Your task to perform on an android device: Do I have any events tomorrow? Image 0: 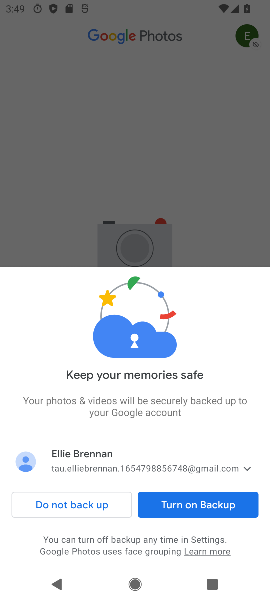
Step 0: click (81, 505)
Your task to perform on an android device: Do I have any events tomorrow? Image 1: 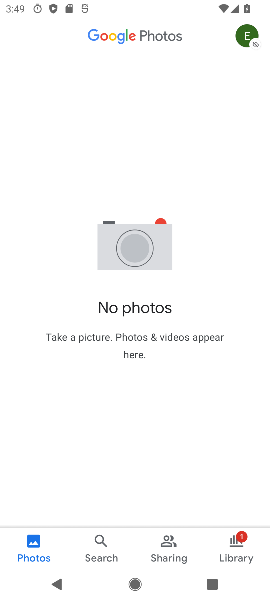
Step 1: press back button
Your task to perform on an android device: Do I have any events tomorrow? Image 2: 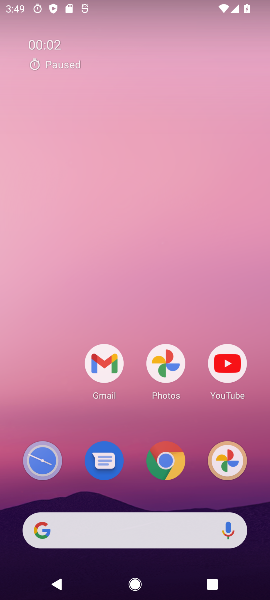
Step 2: drag from (184, 506) to (133, 144)
Your task to perform on an android device: Do I have any events tomorrow? Image 3: 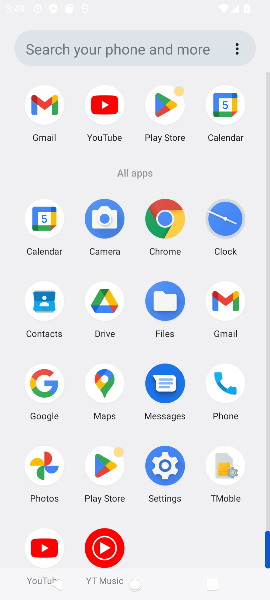
Step 3: drag from (248, 451) to (223, 267)
Your task to perform on an android device: Do I have any events tomorrow? Image 4: 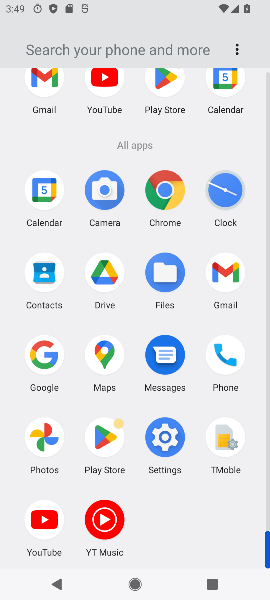
Step 4: drag from (197, 460) to (161, 221)
Your task to perform on an android device: Do I have any events tomorrow? Image 5: 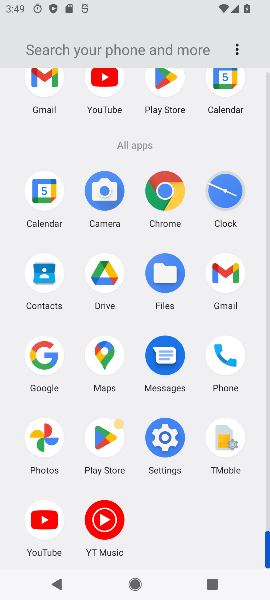
Step 5: click (226, 79)
Your task to perform on an android device: Do I have any events tomorrow? Image 6: 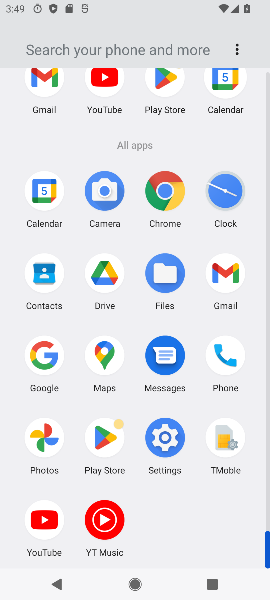
Step 6: click (226, 79)
Your task to perform on an android device: Do I have any events tomorrow? Image 7: 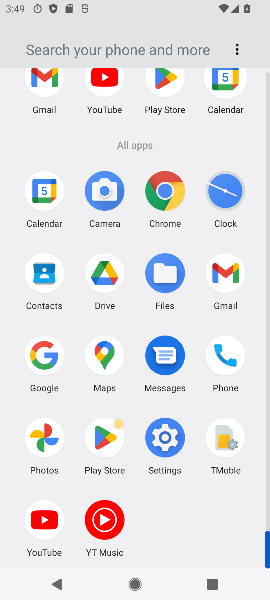
Step 7: click (226, 79)
Your task to perform on an android device: Do I have any events tomorrow? Image 8: 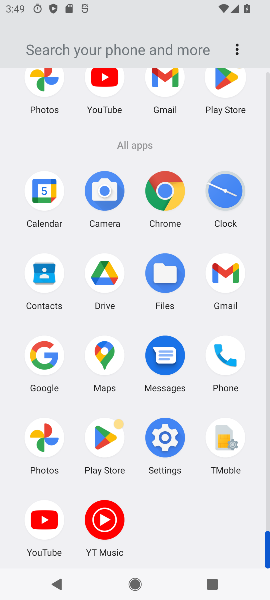
Step 8: click (227, 80)
Your task to perform on an android device: Do I have any events tomorrow? Image 9: 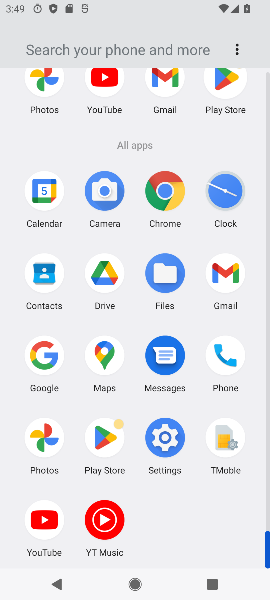
Step 9: click (229, 80)
Your task to perform on an android device: Do I have any events tomorrow? Image 10: 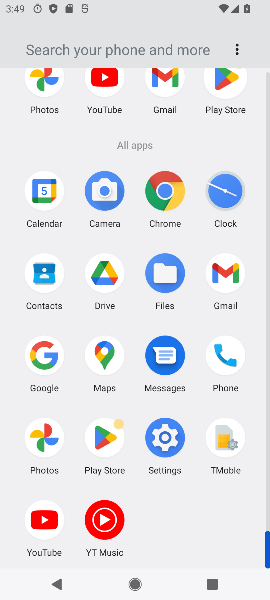
Step 10: click (230, 82)
Your task to perform on an android device: Do I have any events tomorrow? Image 11: 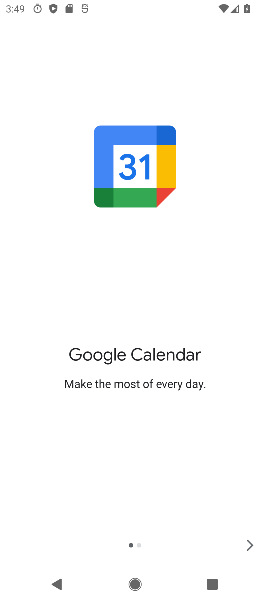
Step 11: click (248, 542)
Your task to perform on an android device: Do I have any events tomorrow? Image 12: 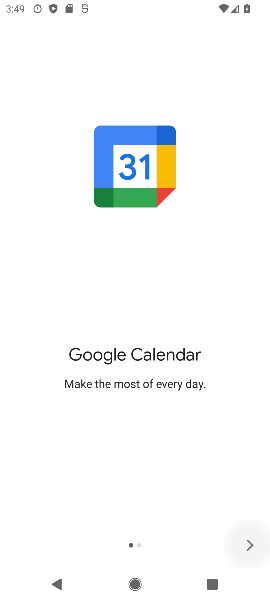
Step 12: click (249, 543)
Your task to perform on an android device: Do I have any events tomorrow? Image 13: 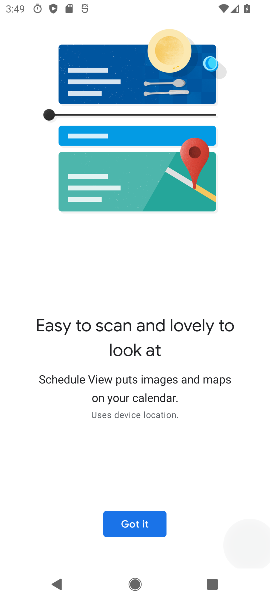
Step 13: click (249, 543)
Your task to perform on an android device: Do I have any events tomorrow? Image 14: 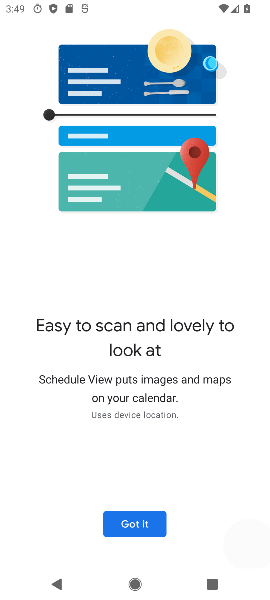
Step 14: click (153, 528)
Your task to perform on an android device: Do I have any events tomorrow? Image 15: 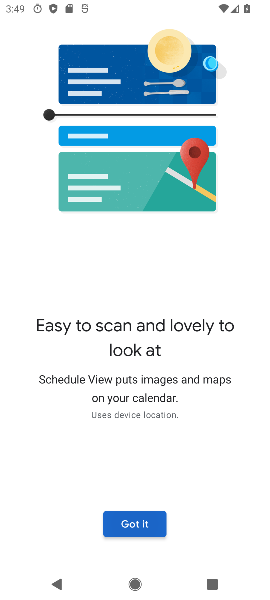
Step 15: click (153, 528)
Your task to perform on an android device: Do I have any events tomorrow? Image 16: 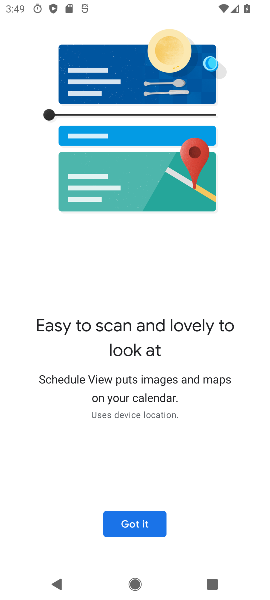
Step 16: click (153, 528)
Your task to perform on an android device: Do I have any events tomorrow? Image 17: 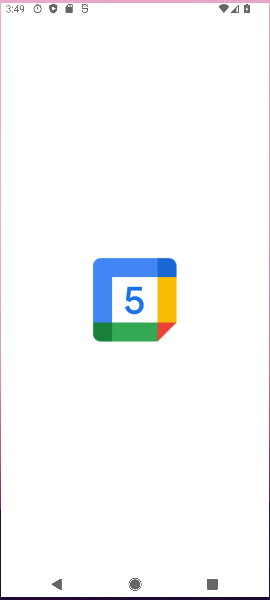
Step 17: click (153, 528)
Your task to perform on an android device: Do I have any events tomorrow? Image 18: 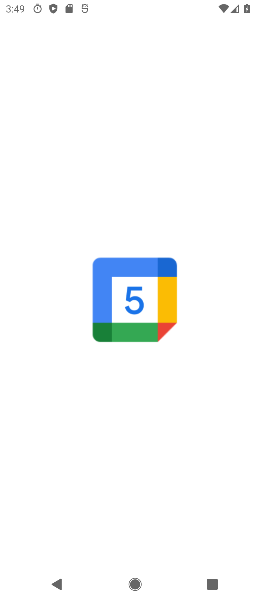
Step 18: click (153, 528)
Your task to perform on an android device: Do I have any events tomorrow? Image 19: 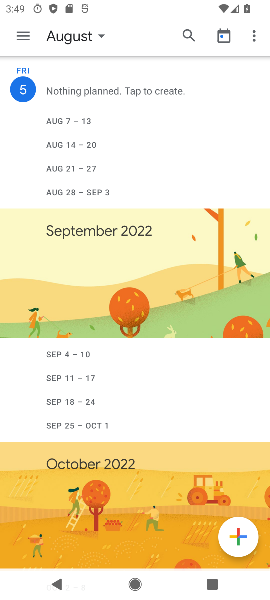
Step 19: click (100, 24)
Your task to perform on an android device: Do I have any events tomorrow? Image 20: 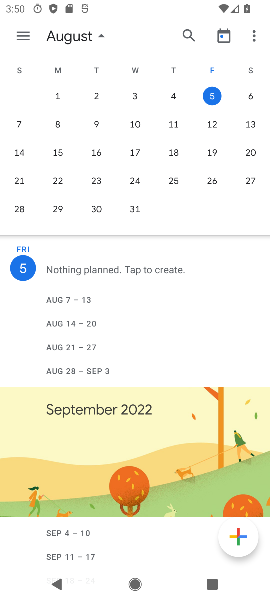
Step 20: click (246, 95)
Your task to perform on an android device: Do I have any events tomorrow? Image 21: 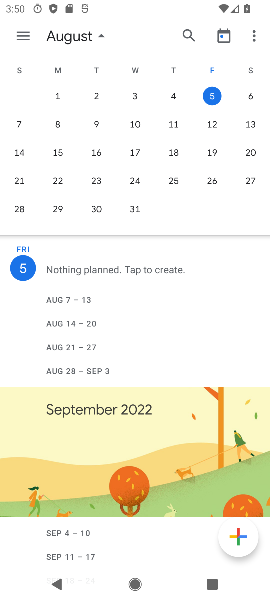
Step 21: click (248, 95)
Your task to perform on an android device: Do I have any events tomorrow? Image 22: 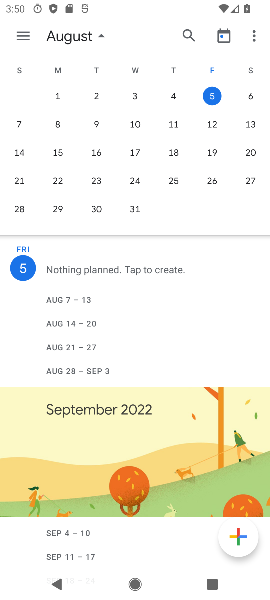
Step 22: click (254, 95)
Your task to perform on an android device: Do I have any events tomorrow? Image 23: 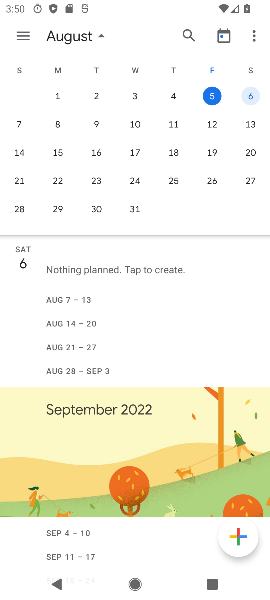
Step 23: task complete